Your task to perform on an android device: turn off wifi Image 0: 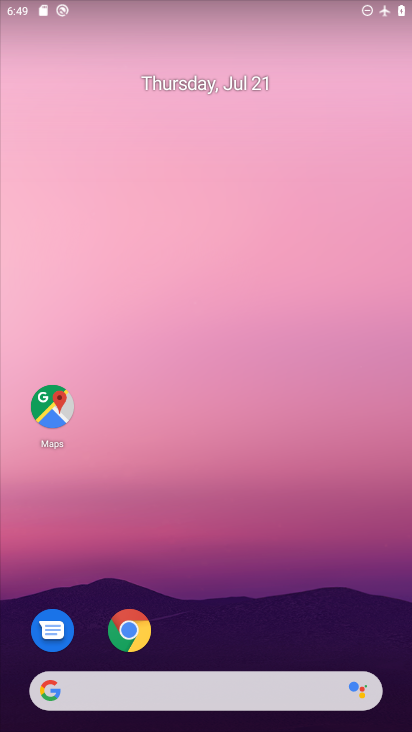
Step 0: drag from (190, 696) to (303, 68)
Your task to perform on an android device: turn off wifi Image 1: 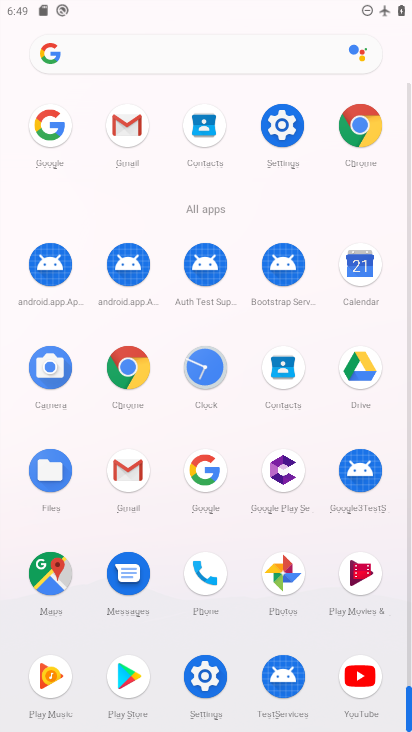
Step 1: click (284, 125)
Your task to perform on an android device: turn off wifi Image 2: 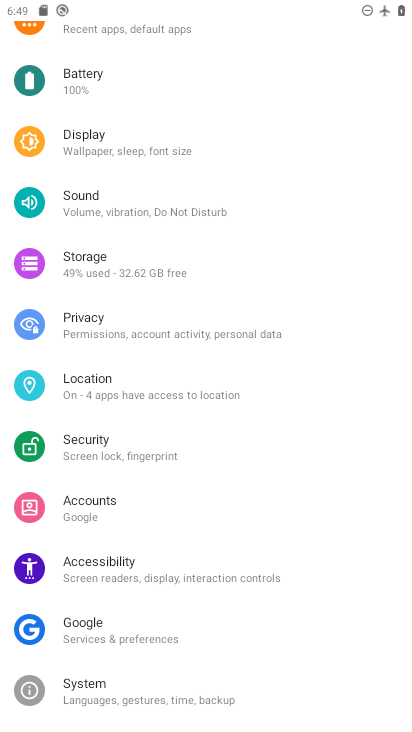
Step 2: drag from (184, 164) to (206, 513)
Your task to perform on an android device: turn off wifi Image 3: 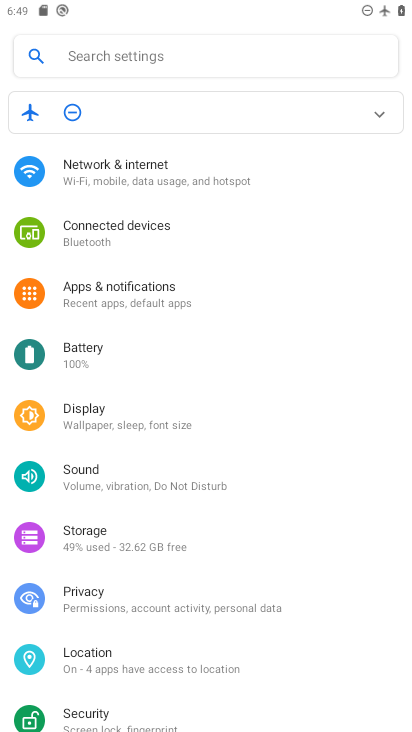
Step 3: click (214, 177)
Your task to perform on an android device: turn off wifi Image 4: 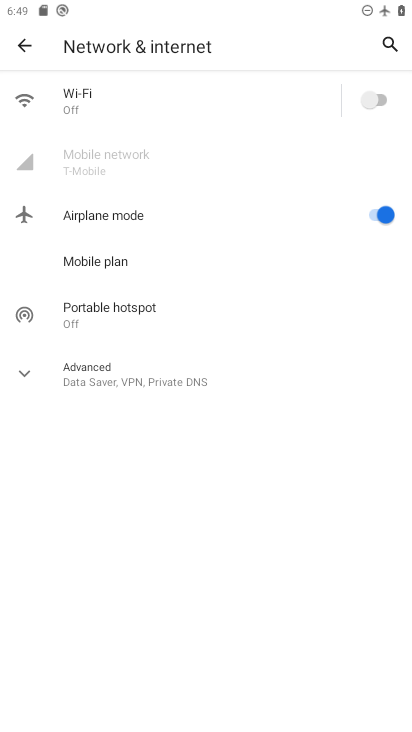
Step 4: task complete